Your task to perform on an android device: star an email in the gmail app Image 0: 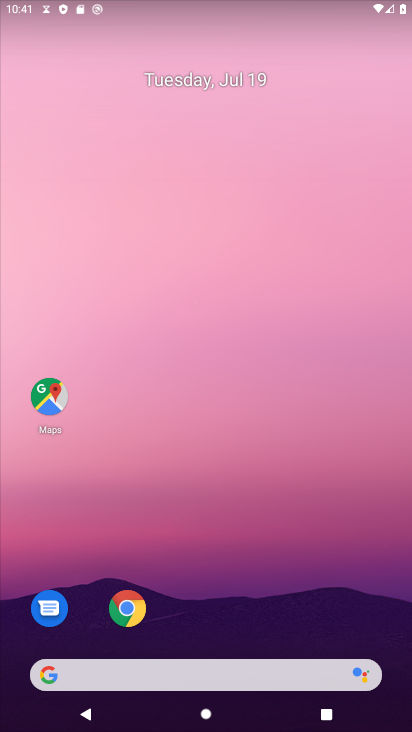
Step 0: drag from (257, 571) to (279, 127)
Your task to perform on an android device: star an email in the gmail app Image 1: 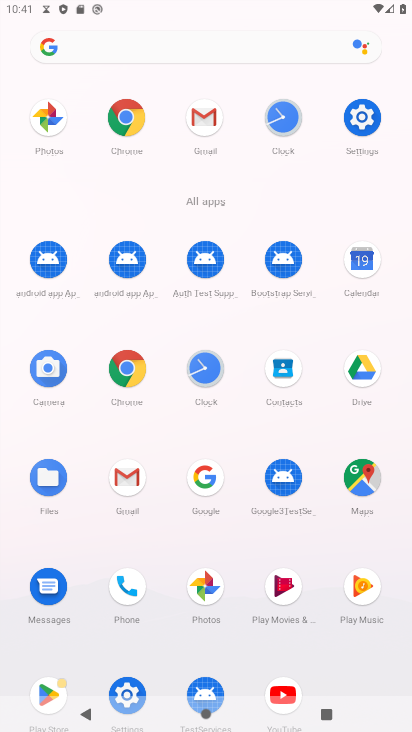
Step 1: click (352, 473)
Your task to perform on an android device: star an email in the gmail app Image 2: 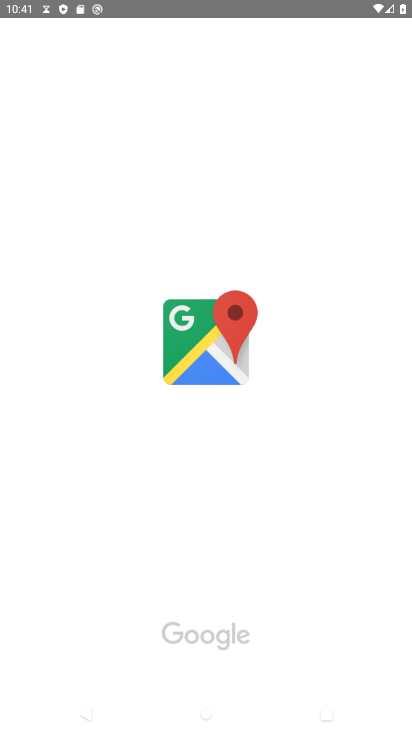
Step 2: press back button
Your task to perform on an android device: star an email in the gmail app Image 3: 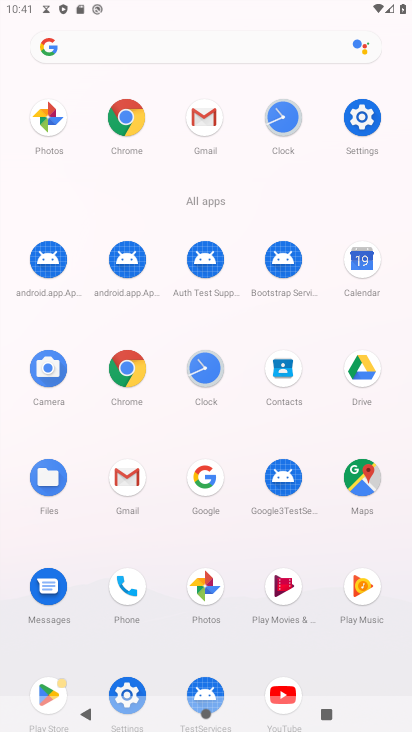
Step 3: click (124, 476)
Your task to perform on an android device: star an email in the gmail app Image 4: 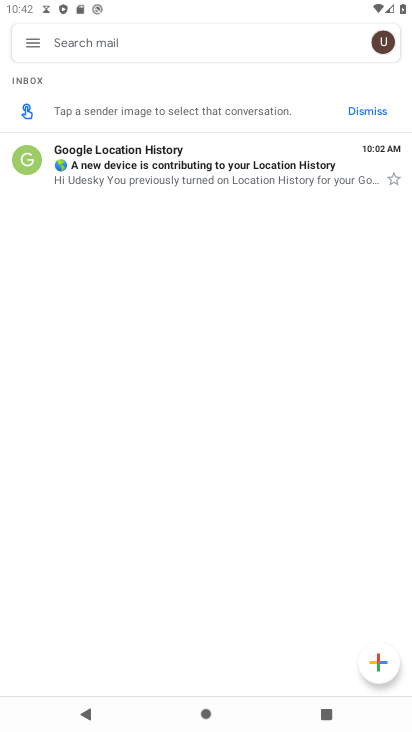
Step 4: click (392, 177)
Your task to perform on an android device: star an email in the gmail app Image 5: 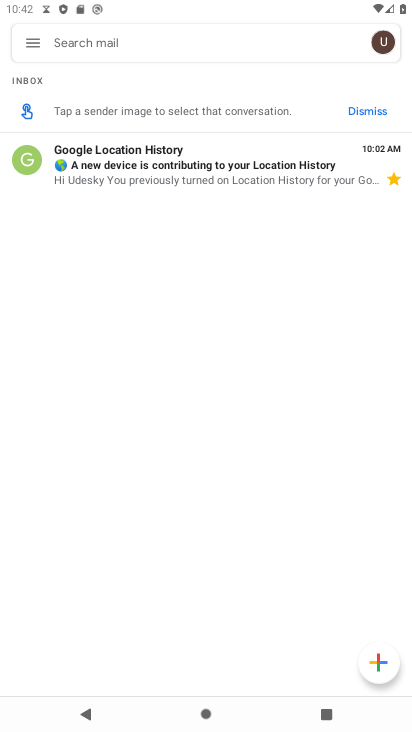
Step 5: task complete